Your task to perform on an android device: View the shopping cart on walmart. Image 0: 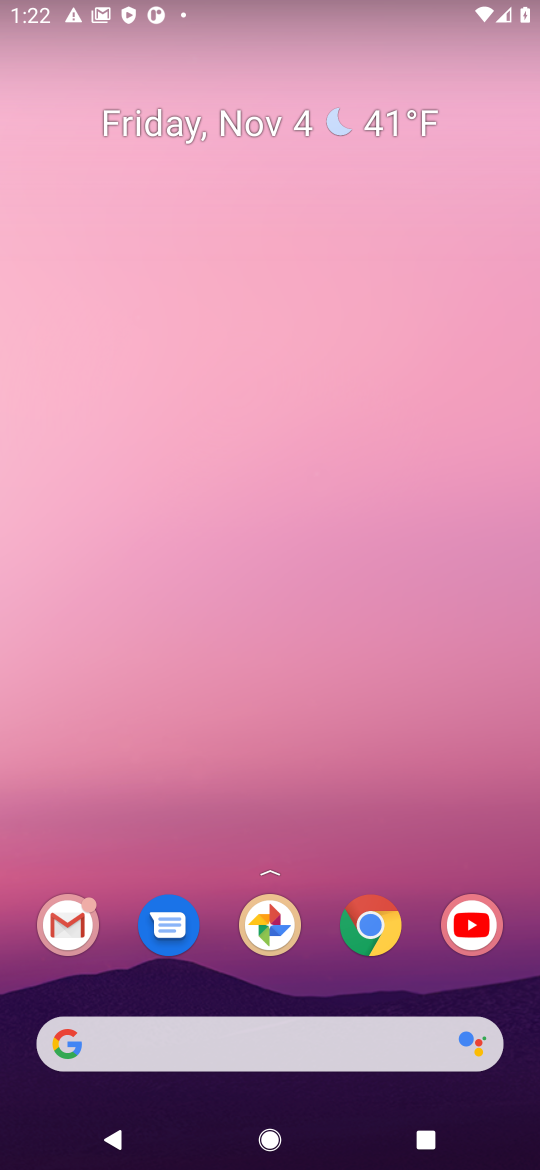
Step 0: click (375, 924)
Your task to perform on an android device: View the shopping cart on walmart. Image 1: 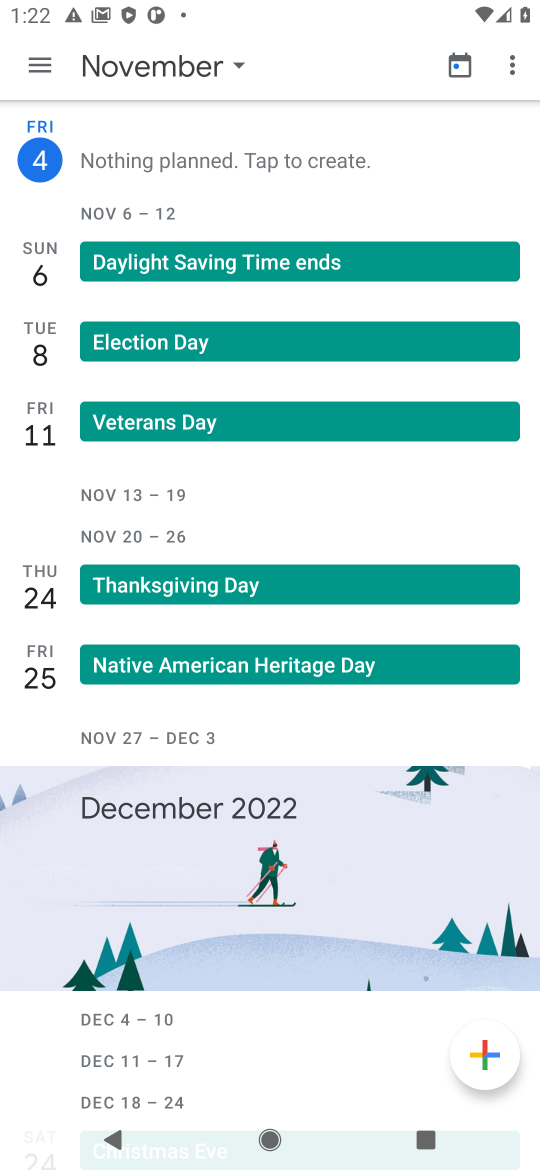
Step 1: press home button
Your task to perform on an android device: View the shopping cart on walmart. Image 2: 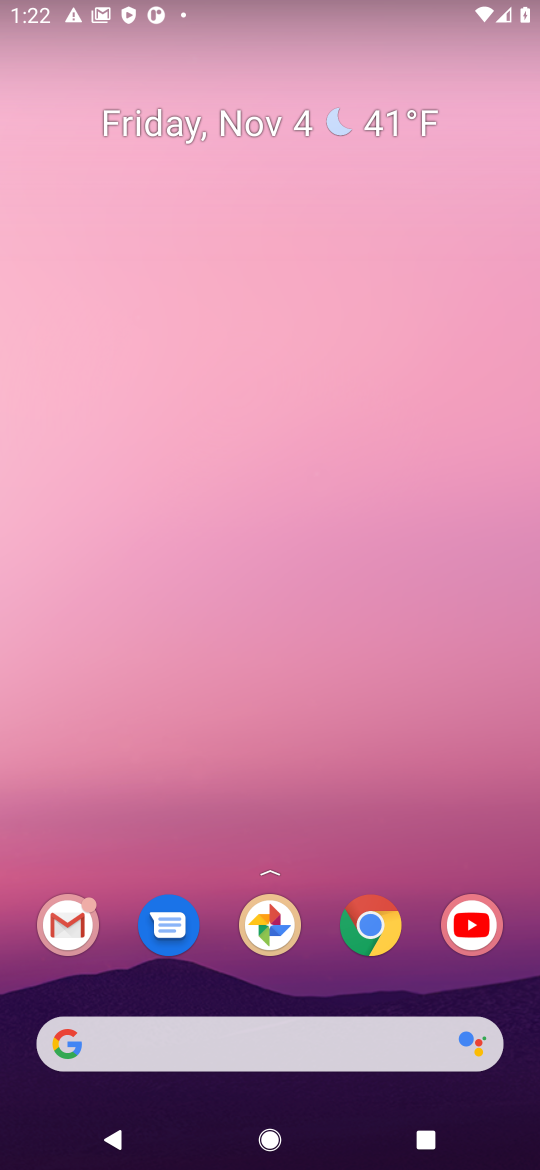
Step 2: click (358, 917)
Your task to perform on an android device: View the shopping cart on walmart. Image 3: 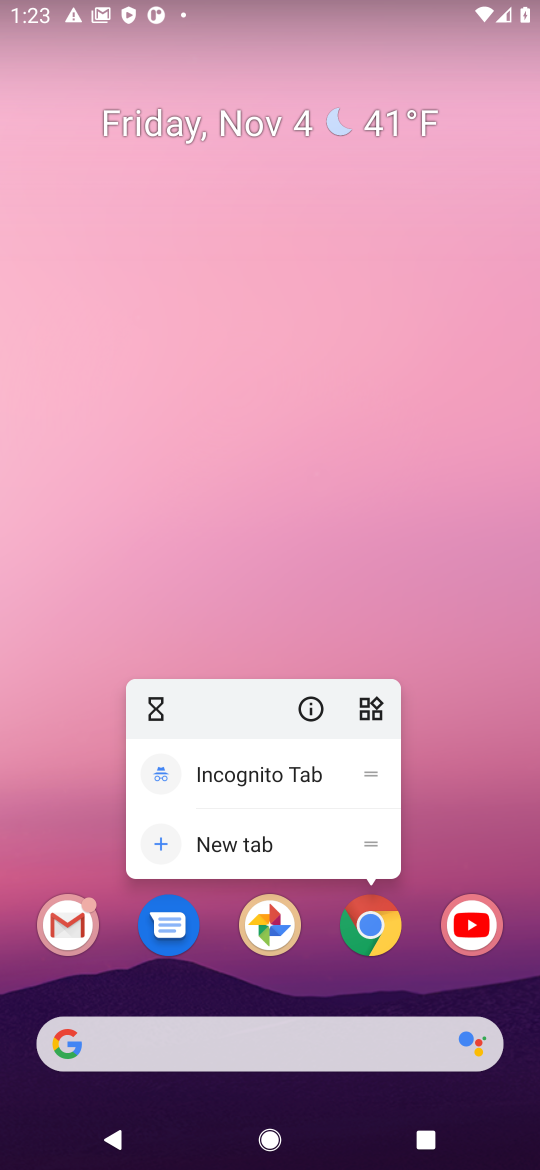
Step 3: click (359, 917)
Your task to perform on an android device: View the shopping cart on walmart. Image 4: 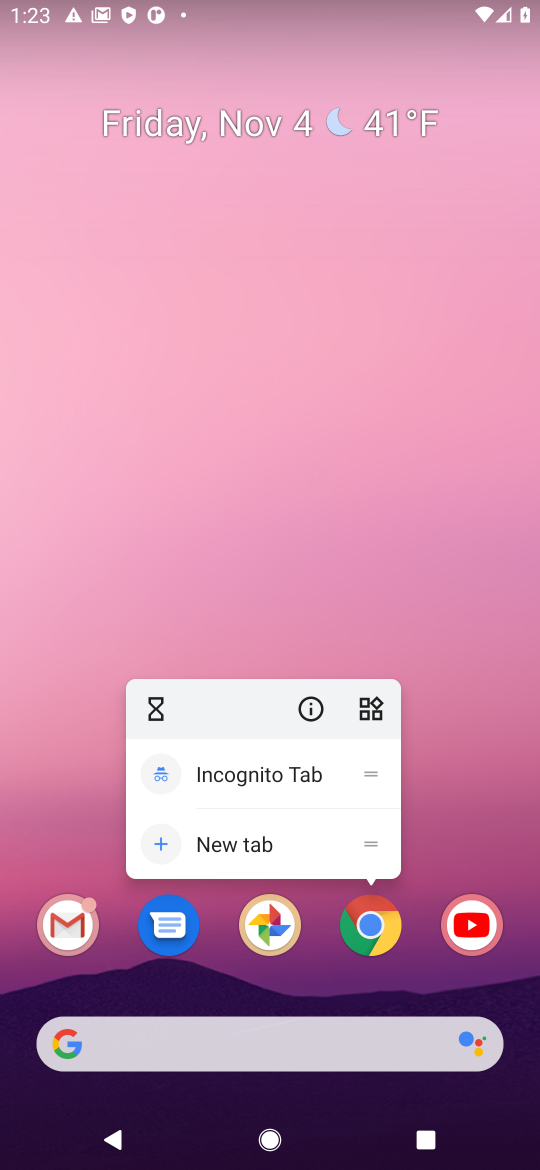
Step 4: click (359, 917)
Your task to perform on an android device: View the shopping cart on walmart. Image 5: 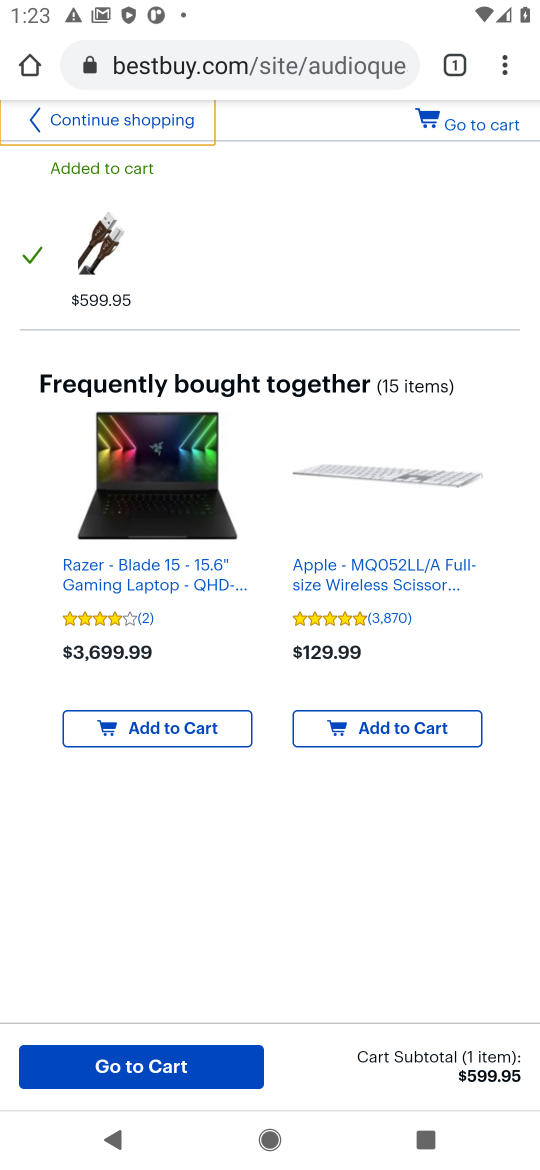
Step 5: click (229, 61)
Your task to perform on an android device: View the shopping cart on walmart. Image 6: 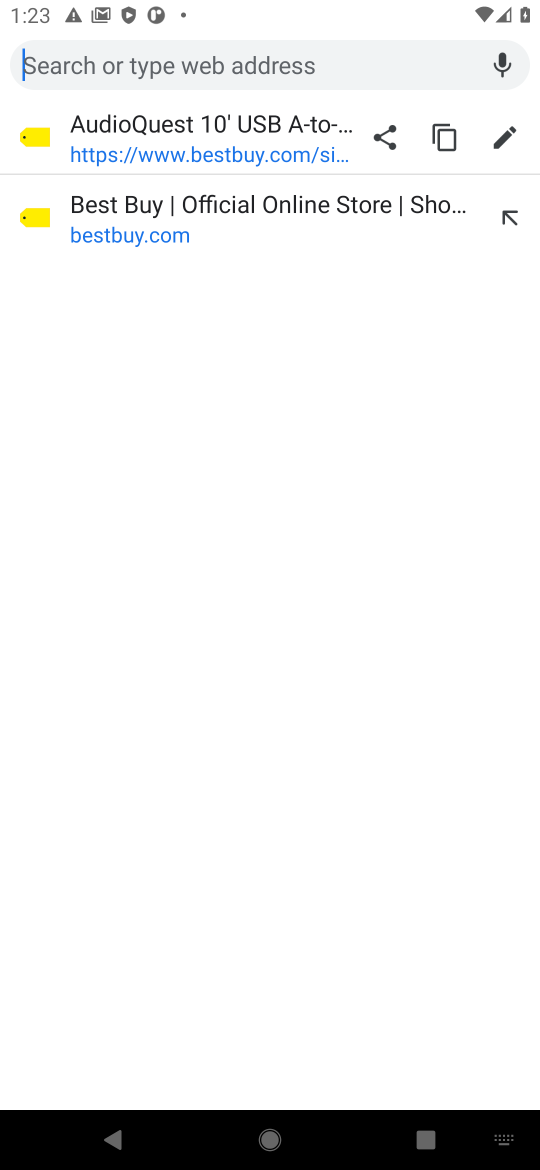
Step 6: press enter
Your task to perform on an android device: View the shopping cart on walmart. Image 7: 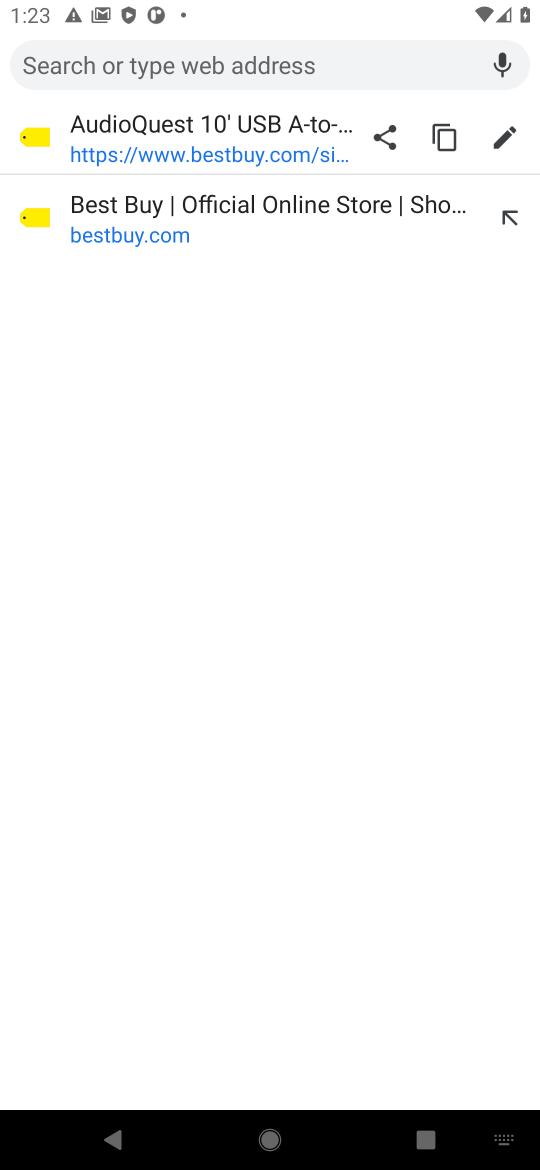
Step 7: type "walmart"
Your task to perform on an android device: View the shopping cart on walmart. Image 8: 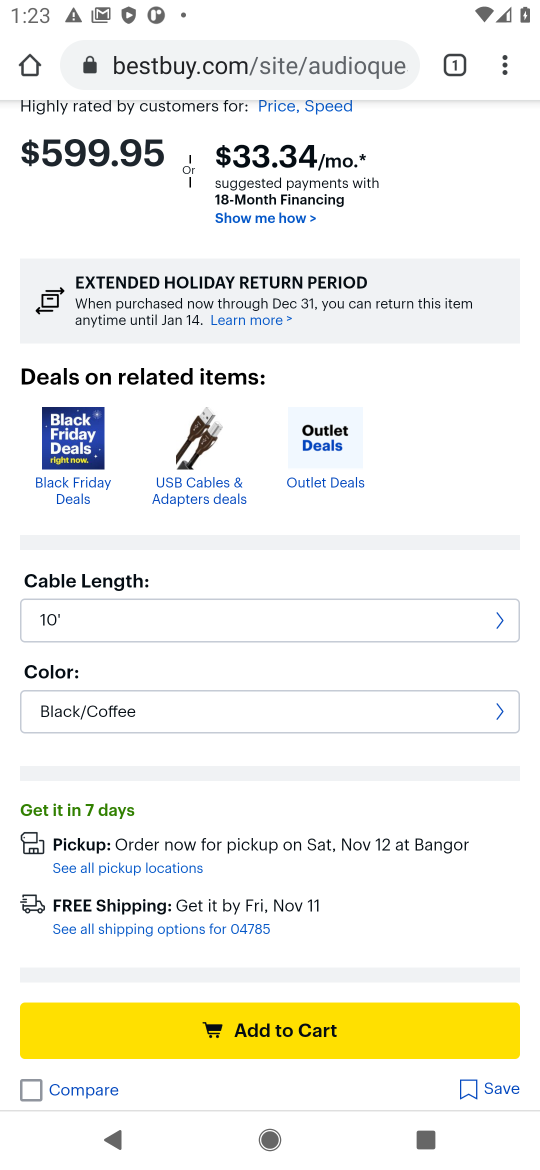
Step 8: click (28, 57)
Your task to perform on an android device: View the shopping cart on walmart. Image 9: 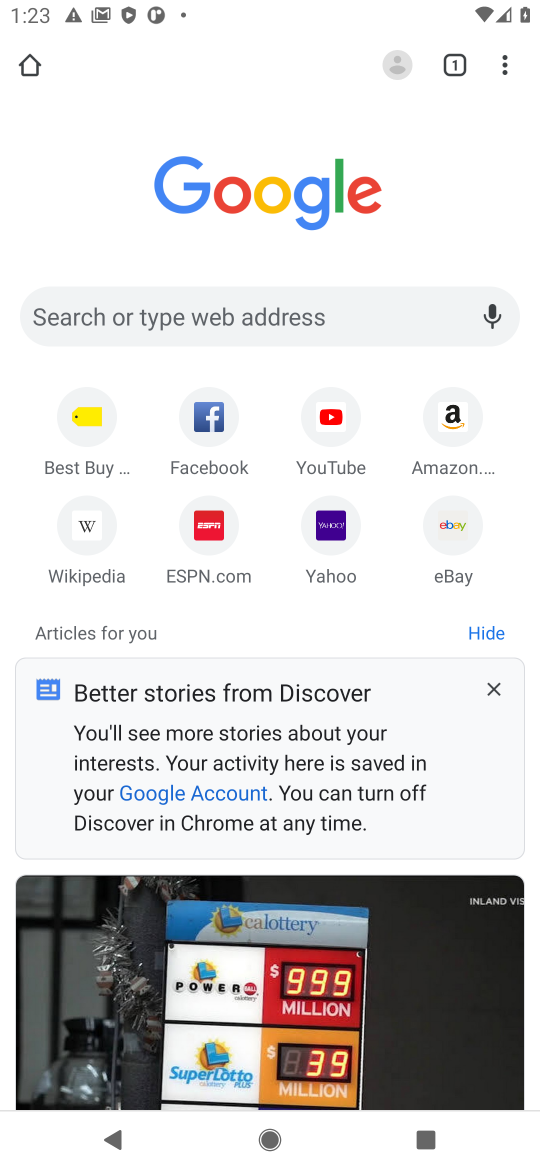
Step 9: click (208, 310)
Your task to perform on an android device: View the shopping cart on walmart. Image 10: 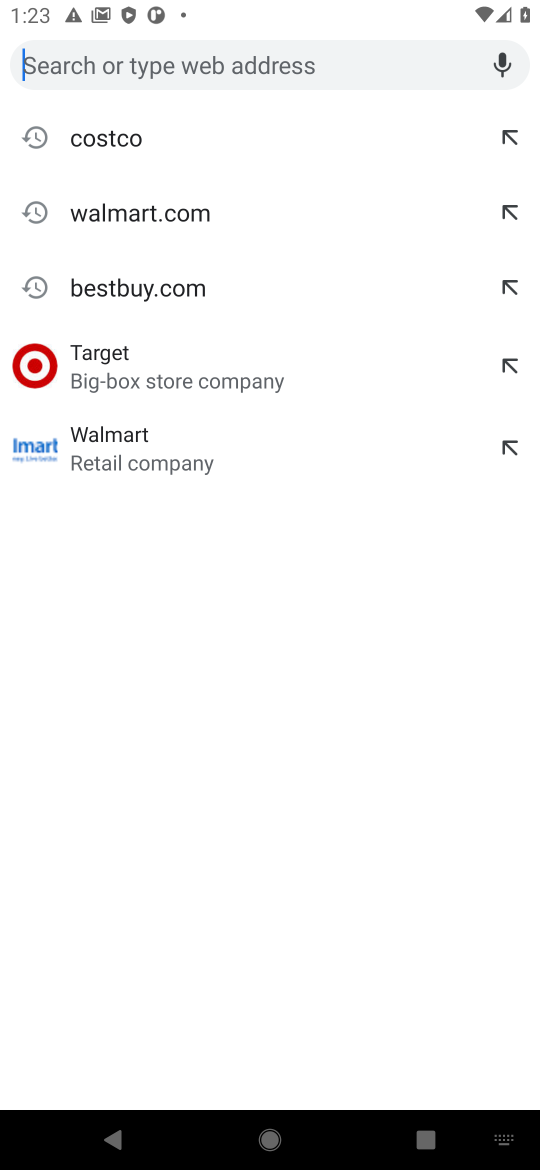
Step 10: type "walmart"
Your task to perform on an android device: View the shopping cart on walmart. Image 11: 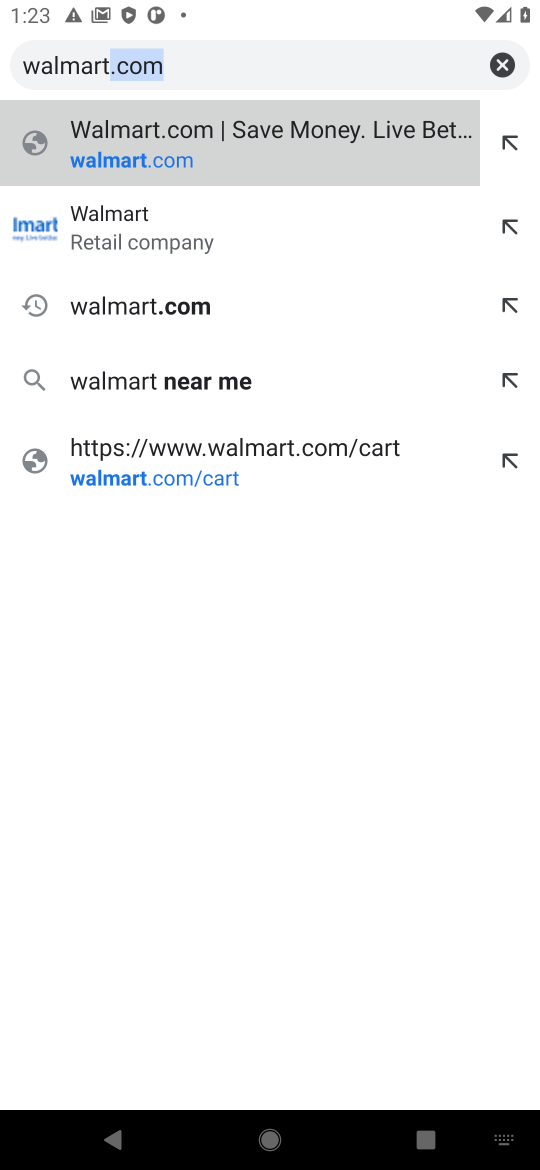
Step 11: press enter
Your task to perform on an android device: View the shopping cart on walmart. Image 12: 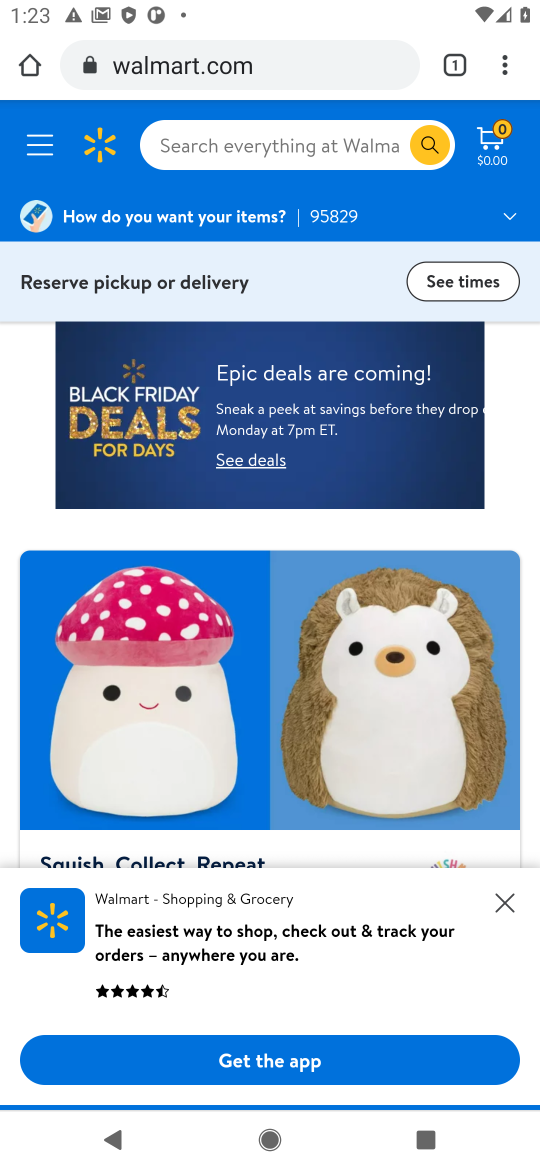
Step 12: click (481, 142)
Your task to perform on an android device: View the shopping cart on walmart. Image 13: 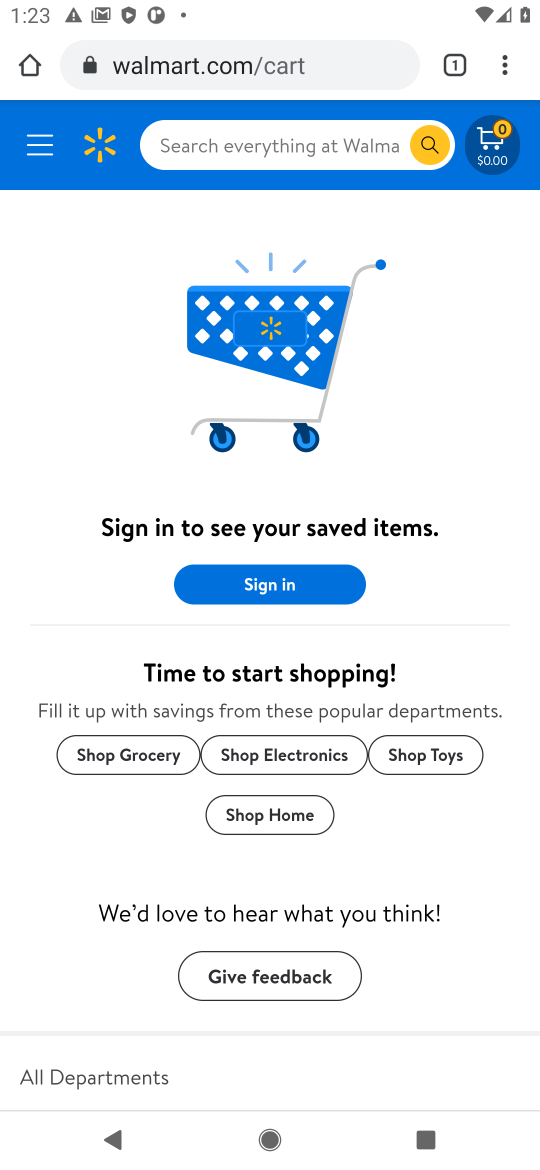
Step 13: task complete